Your task to perform on an android device: change the clock display to digital Image 0: 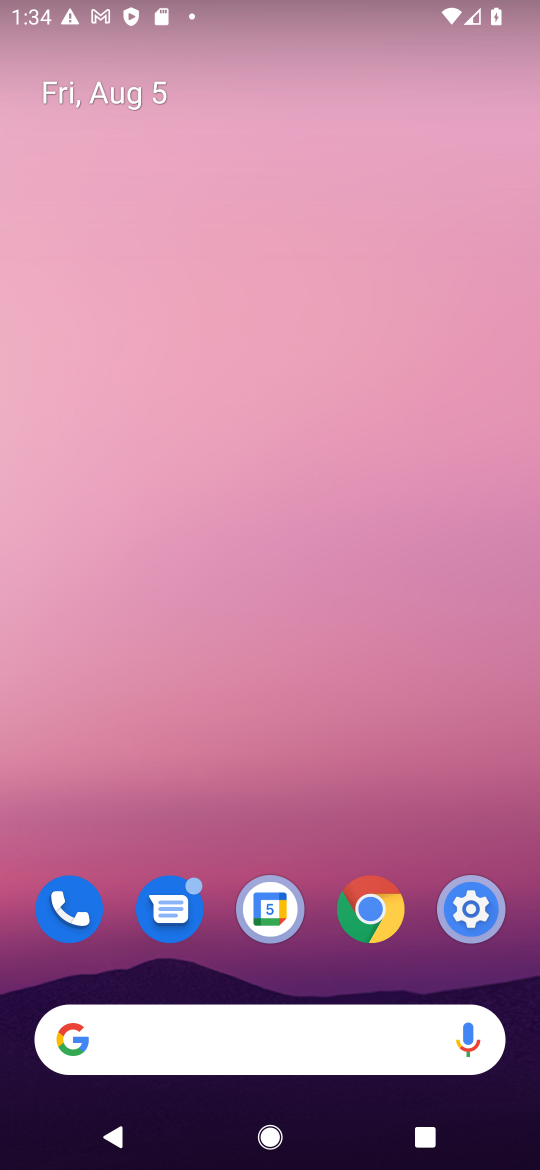
Step 0: drag from (312, 834) to (301, 135)
Your task to perform on an android device: change the clock display to digital Image 1: 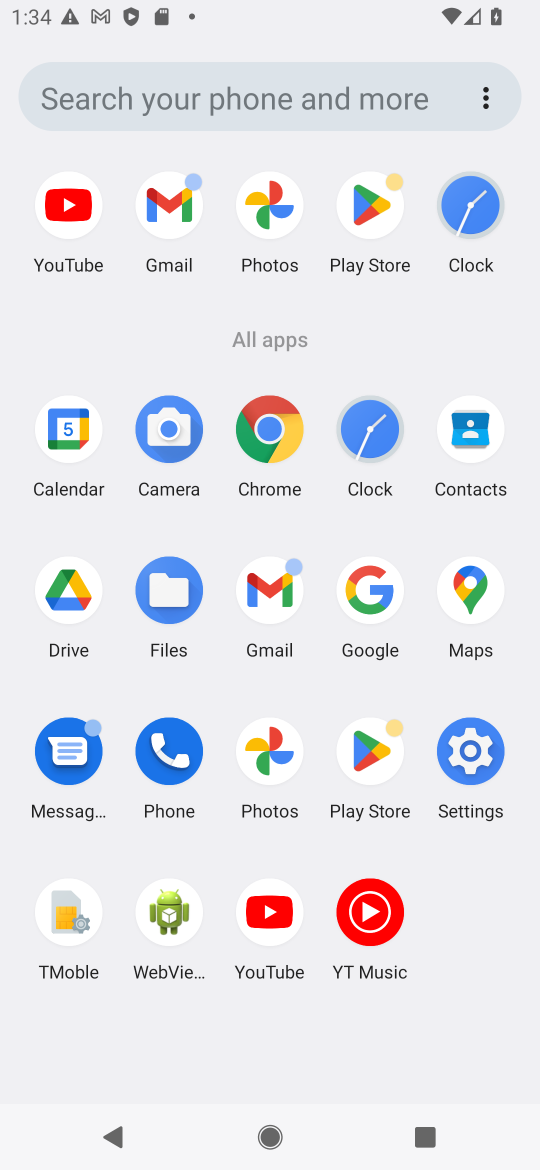
Step 1: click (380, 427)
Your task to perform on an android device: change the clock display to digital Image 2: 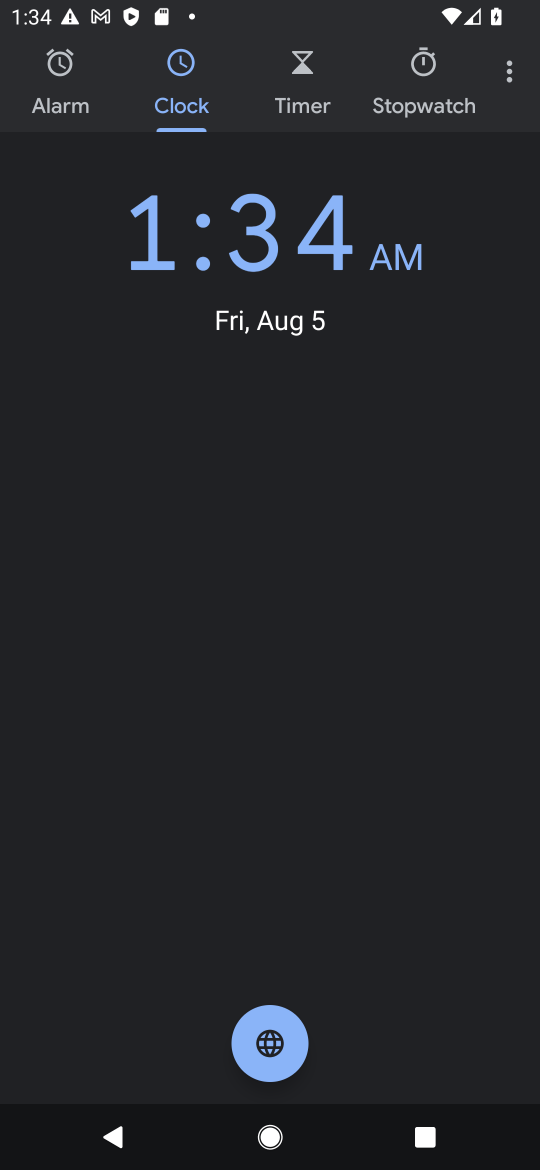
Step 2: click (511, 68)
Your task to perform on an android device: change the clock display to digital Image 3: 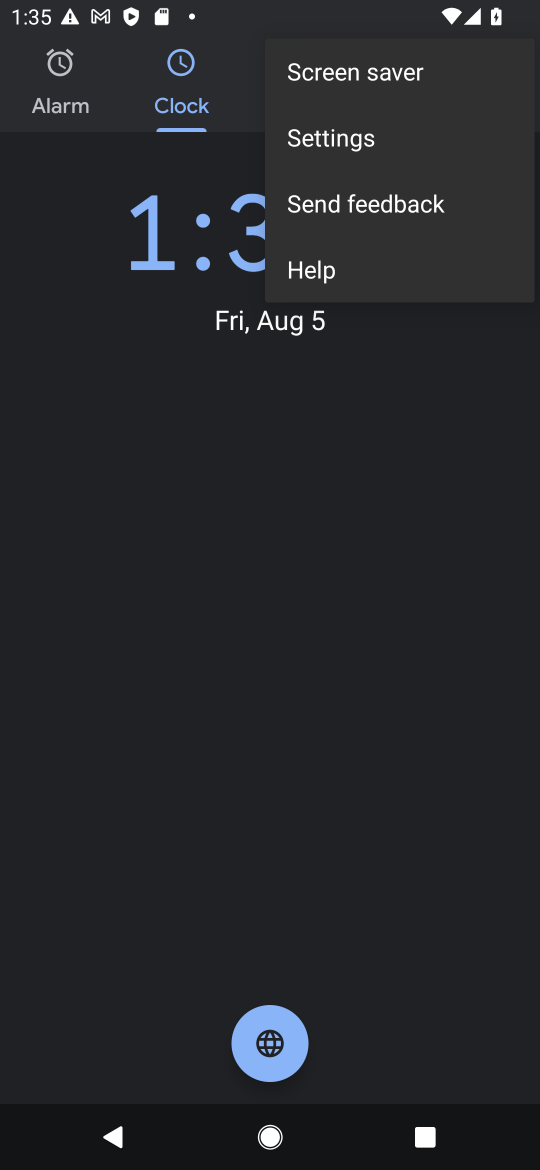
Step 3: click (349, 136)
Your task to perform on an android device: change the clock display to digital Image 4: 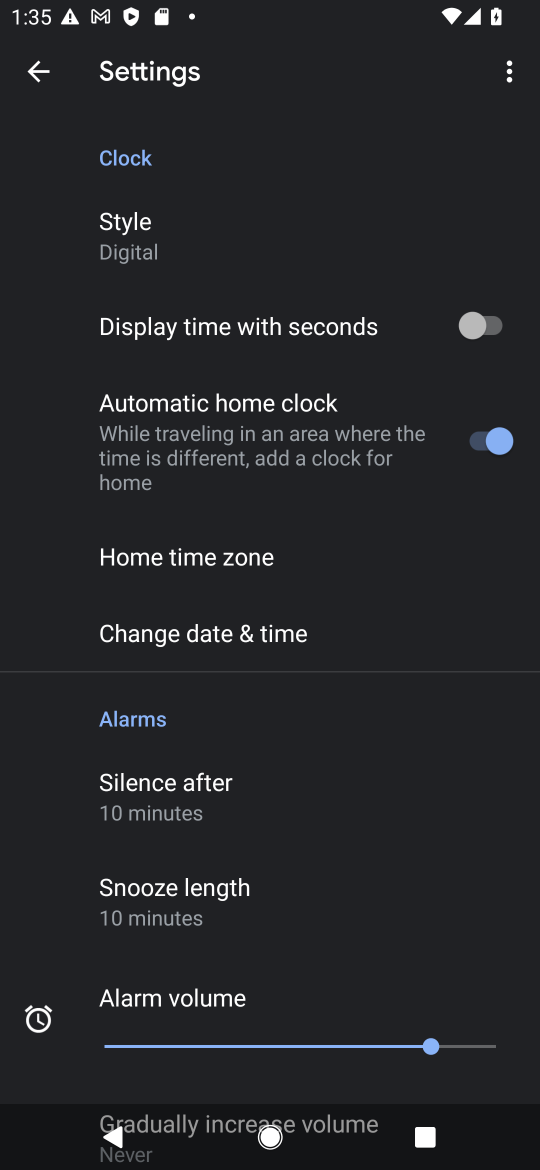
Step 4: task complete